Your task to perform on an android device: Open Google Maps Image 0: 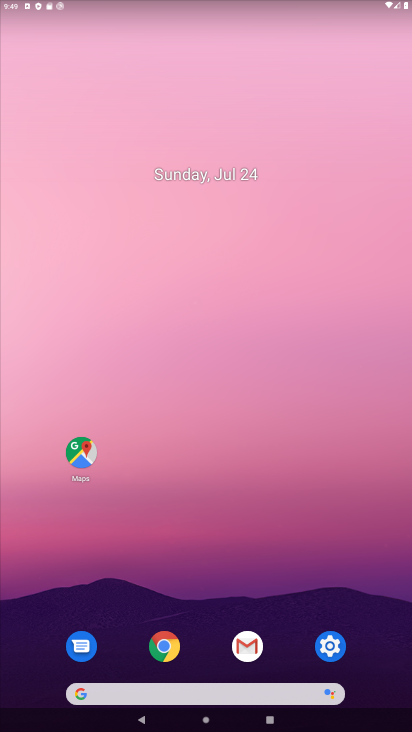
Step 0: click (71, 453)
Your task to perform on an android device: Open Google Maps Image 1: 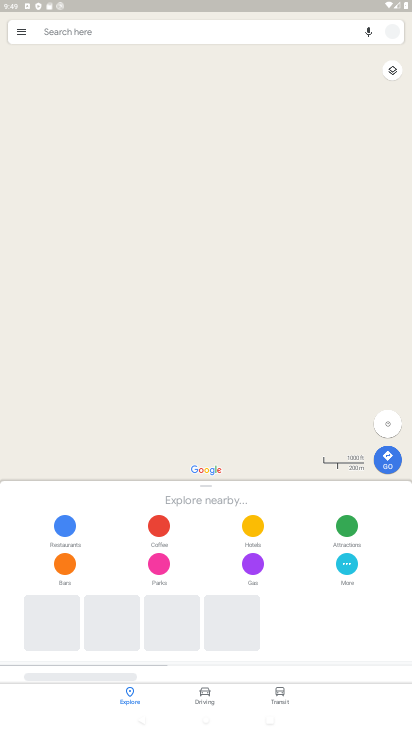
Step 1: click (380, 428)
Your task to perform on an android device: Open Google Maps Image 2: 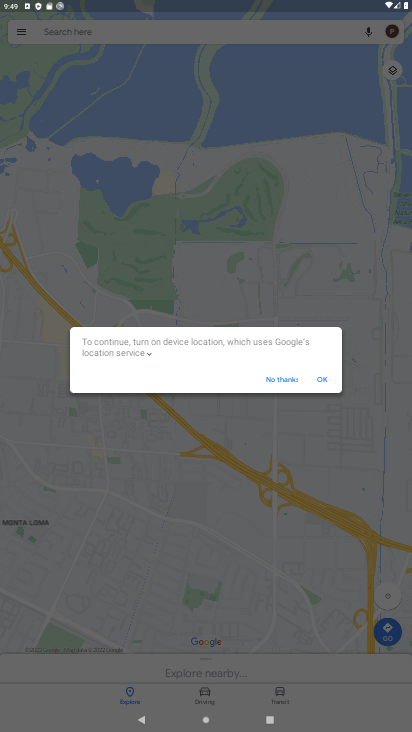
Step 2: click (274, 386)
Your task to perform on an android device: Open Google Maps Image 3: 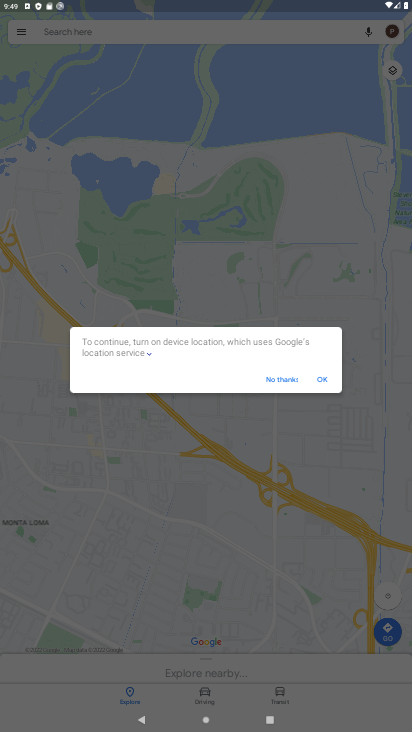
Step 3: click (278, 376)
Your task to perform on an android device: Open Google Maps Image 4: 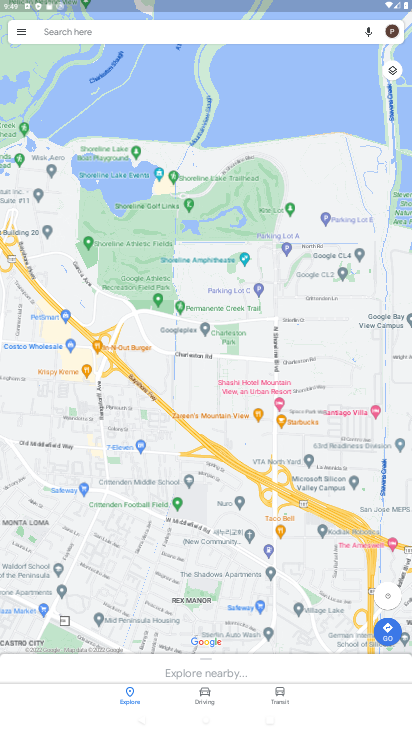
Step 4: task complete